Your task to perform on an android device: turn off sleep mode Image 0: 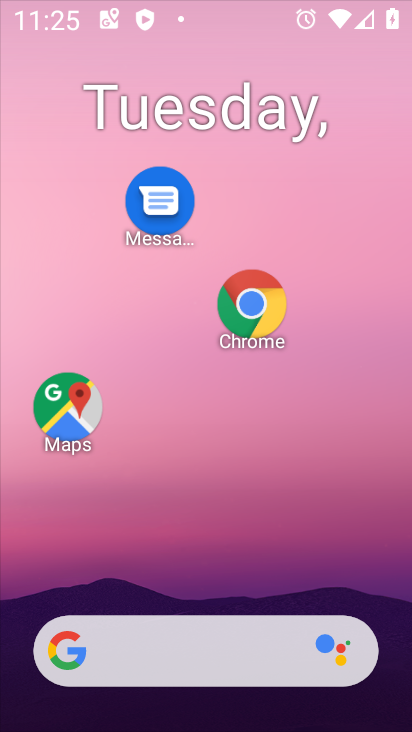
Step 0: drag from (280, 404) to (305, 146)
Your task to perform on an android device: turn off sleep mode Image 1: 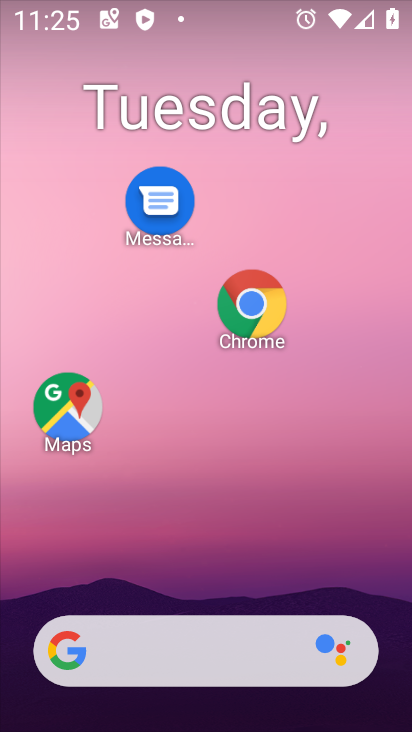
Step 1: drag from (264, 591) to (327, 140)
Your task to perform on an android device: turn off sleep mode Image 2: 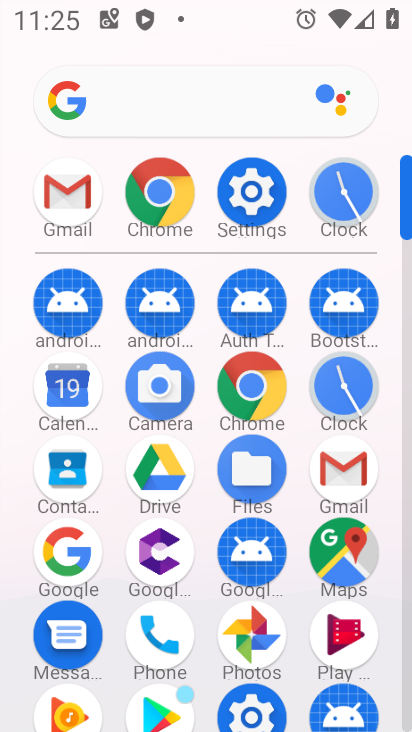
Step 2: click (246, 197)
Your task to perform on an android device: turn off sleep mode Image 3: 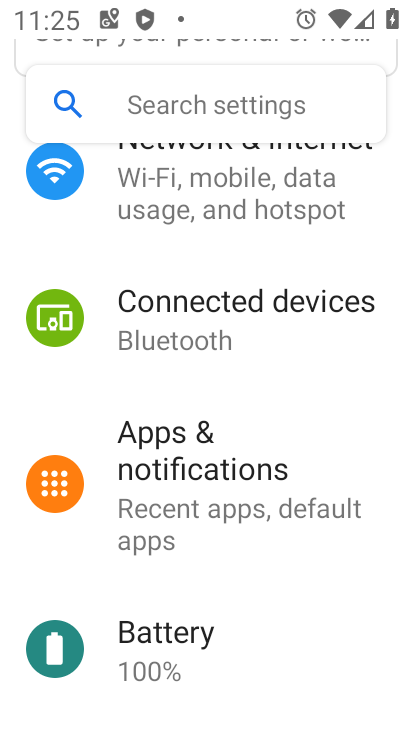
Step 3: task complete